Your task to perform on an android device: Go to display settings Image 0: 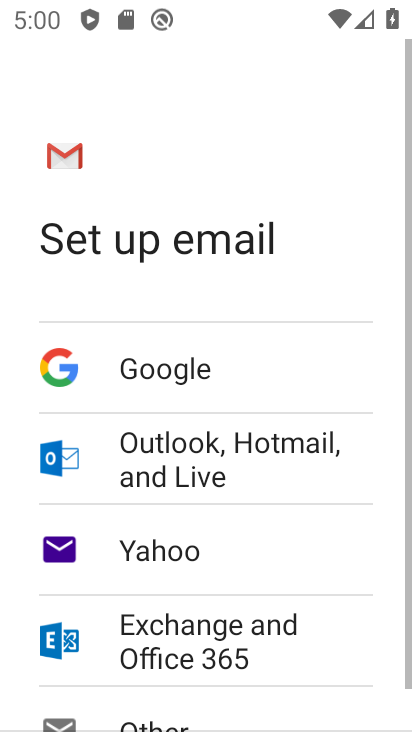
Step 0: press home button
Your task to perform on an android device: Go to display settings Image 1: 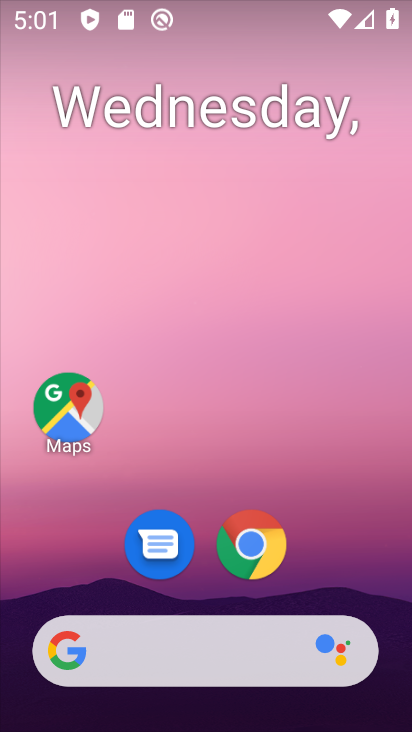
Step 1: drag from (389, 716) to (359, 95)
Your task to perform on an android device: Go to display settings Image 2: 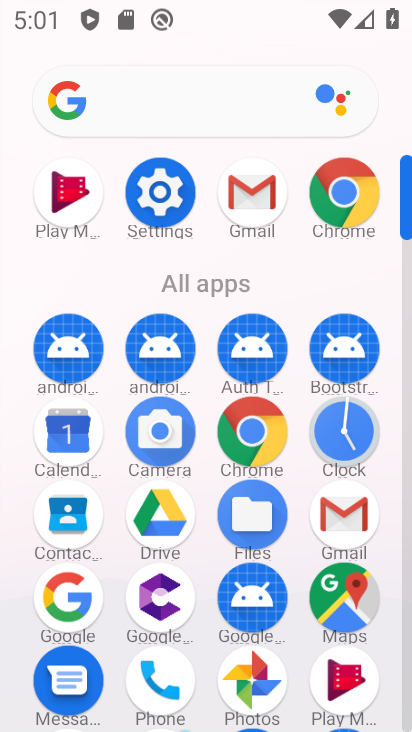
Step 2: click (150, 211)
Your task to perform on an android device: Go to display settings Image 3: 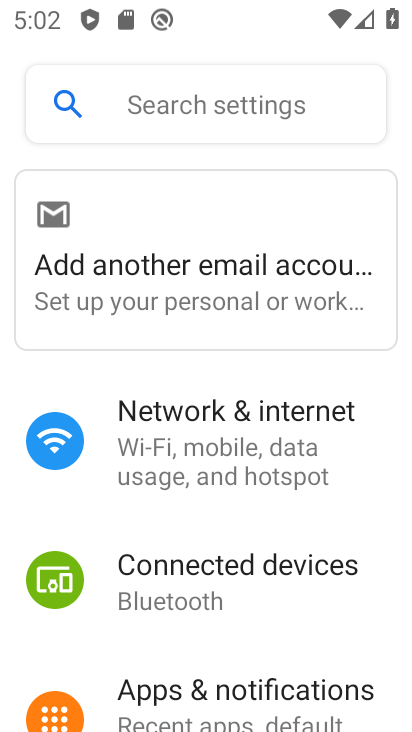
Step 3: drag from (286, 606) to (306, 250)
Your task to perform on an android device: Go to display settings Image 4: 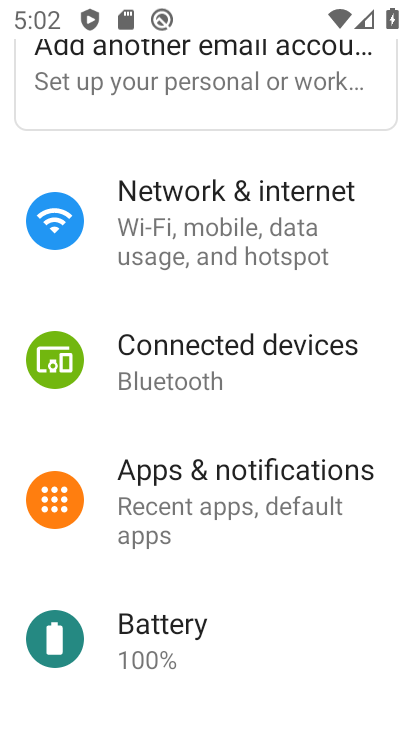
Step 4: drag from (250, 650) to (266, 340)
Your task to perform on an android device: Go to display settings Image 5: 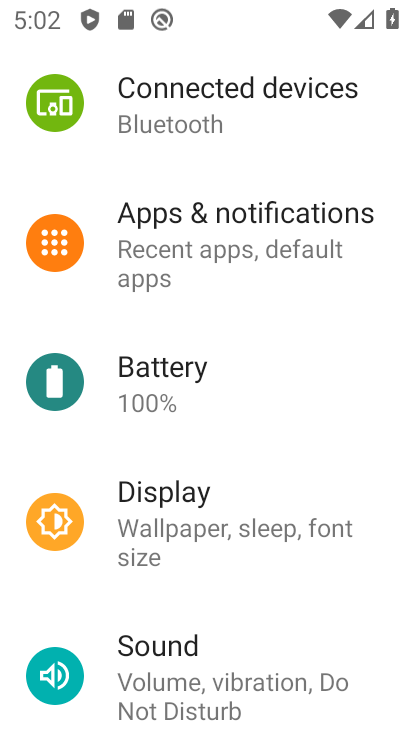
Step 5: click (152, 504)
Your task to perform on an android device: Go to display settings Image 6: 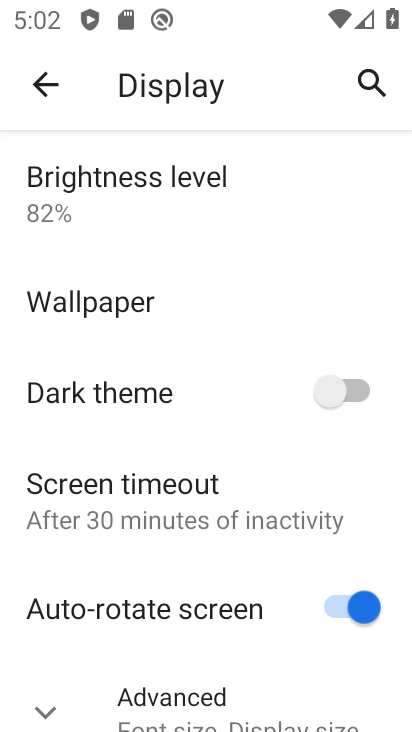
Step 6: drag from (218, 566) to (224, 237)
Your task to perform on an android device: Go to display settings Image 7: 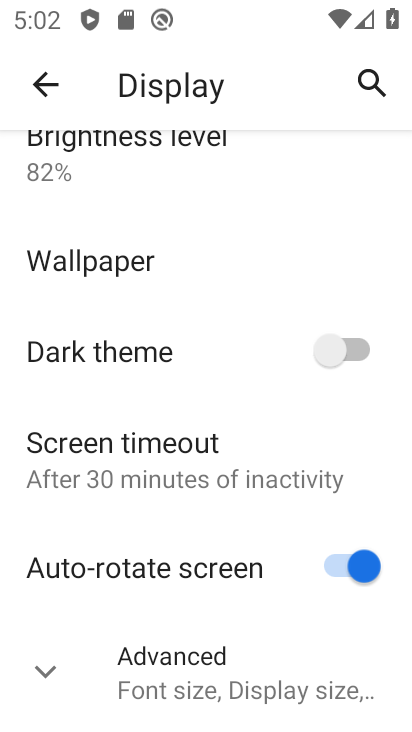
Step 7: click (34, 672)
Your task to perform on an android device: Go to display settings Image 8: 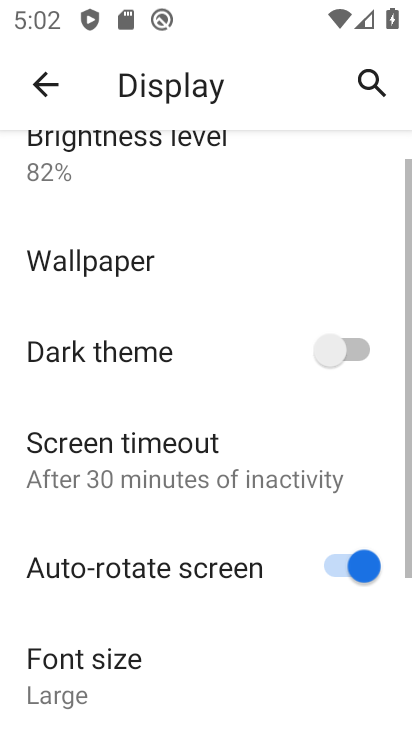
Step 8: task complete